Your task to perform on an android device: move a message to another label in the gmail app Image 0: 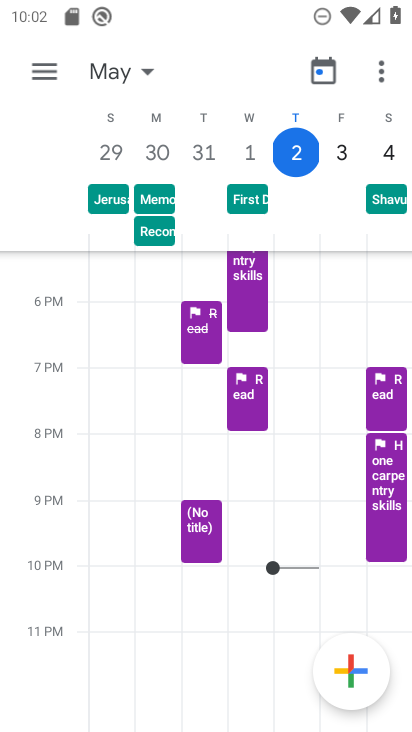
Step 0: press home button
Your task to perform on an android device: move a message to another label in the gmail app Image 1: 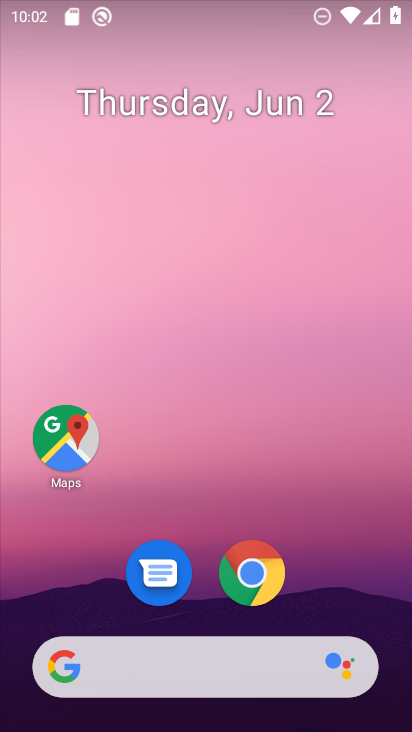
Step 1: drag from (293, 471) to (255, 82)
Your task to perform on an android device: move a message to another label in the gmail app Image 2: 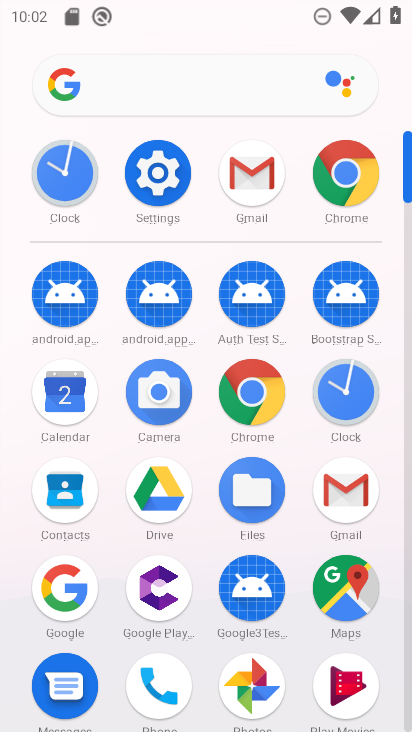
Step 2: click (244, 192)
Your task to perform on an android device: move a message to another label in the gmail app Image 3: 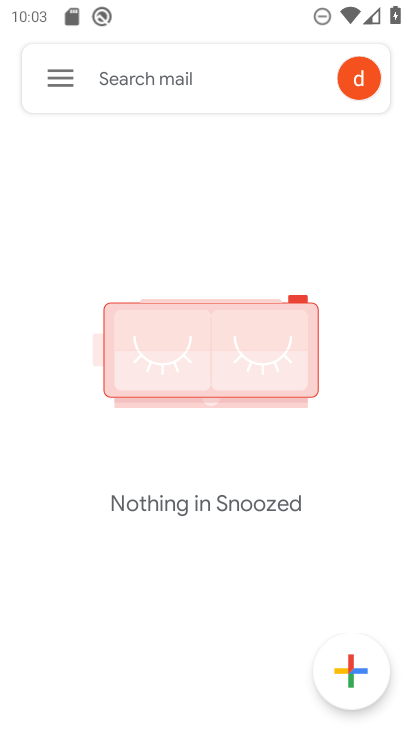
Step 3: click (57, 66)
Your task to perform on an android device: move a message to another label in the gmail app Image 4: 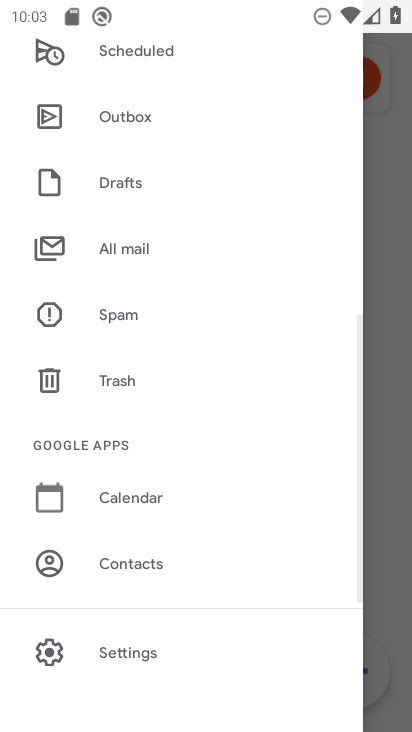
Step 4: click (149, 260)
Your task to perform on an android device: move a message to another label in the gmail app Image 5: 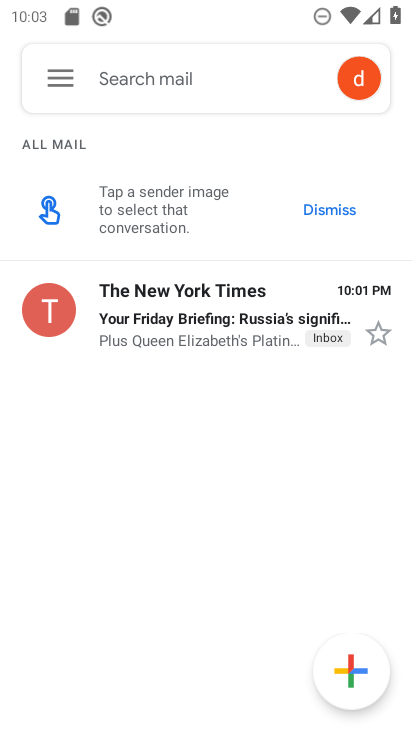
Step 5: task complete